Your task to perform on an android device: Toggle the flashlight Image 0: 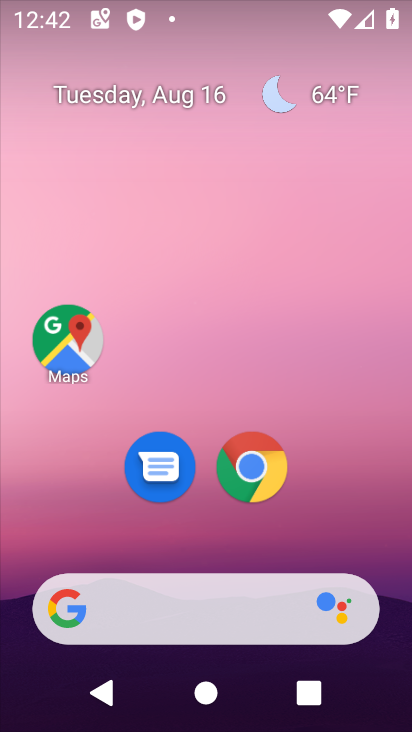
Step 0: press home button
Your task to perform on an android device: Toggle the flashlight Image 1: 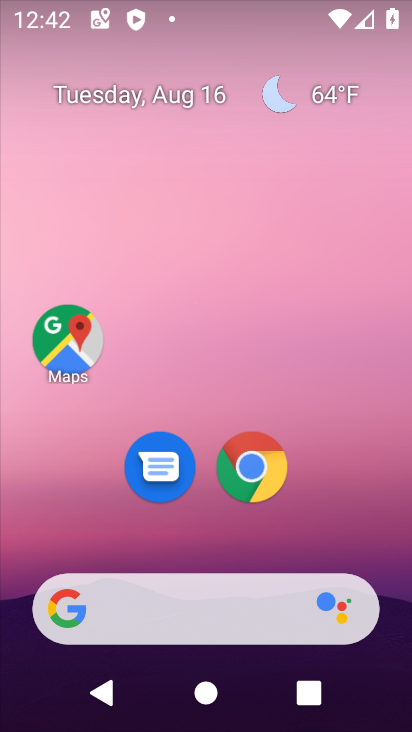
Step 1: drag from (263, 1) to (264, 391)
Your task to perform on an android device: Toggle the flashlight Image 2: 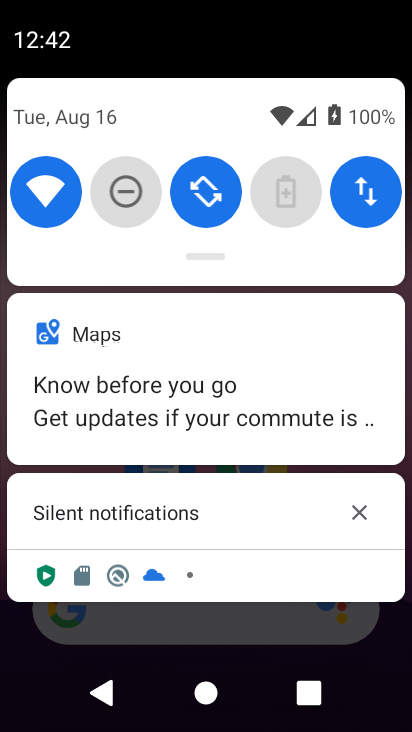
Step 2: drag from (241, 95) to (273, 353)
Your task to perform on an android device: Toggle the flashlight Image 3: 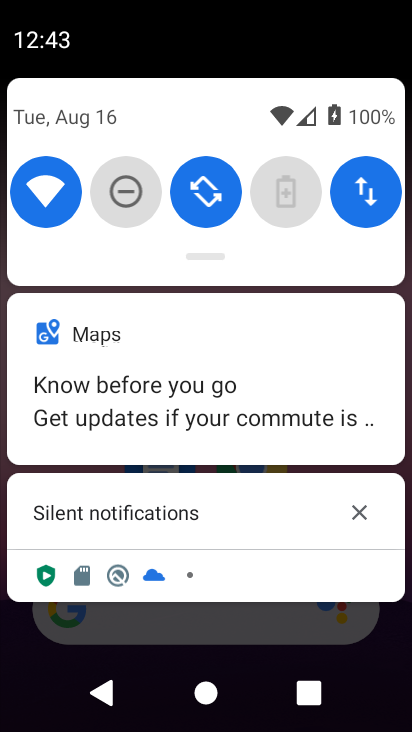
Step 3: drag from (240, 119) to (264, 373)
Your task to perform on an android device: Toggle the flashlight Image 4: 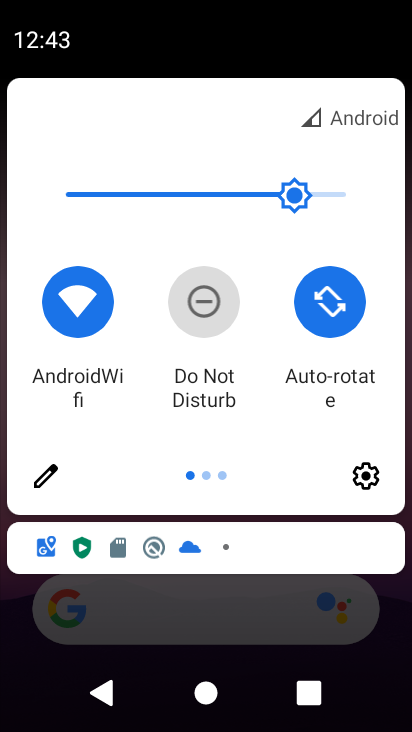
Step 4: click (46, 471)
Your task to perform on an android device: Toggle the flashlight Image 5: 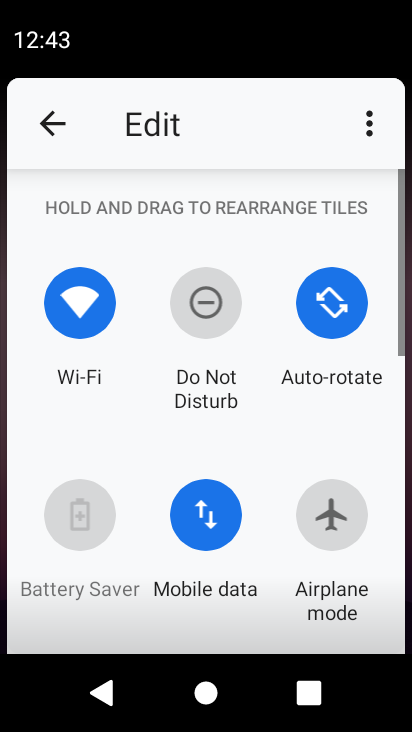
Step 5: task complete